Your task to perform on an android device: Go to notification settings Image 0: 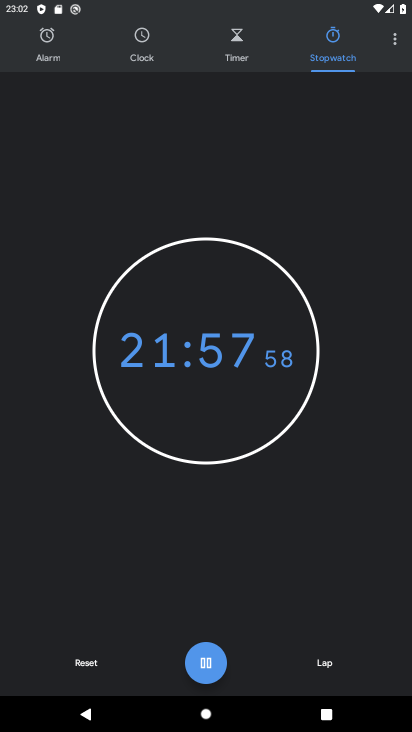
Step 0: press home button
Your task to perform on an android device: Go to notification settings Image 1: 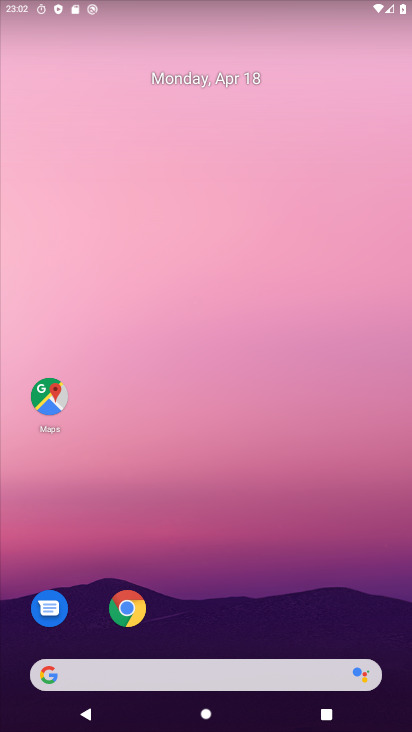
Step 1: drag from (242, 592) to (240, 133)
Your task to perform on an android device: Go to notification settings Image 2: 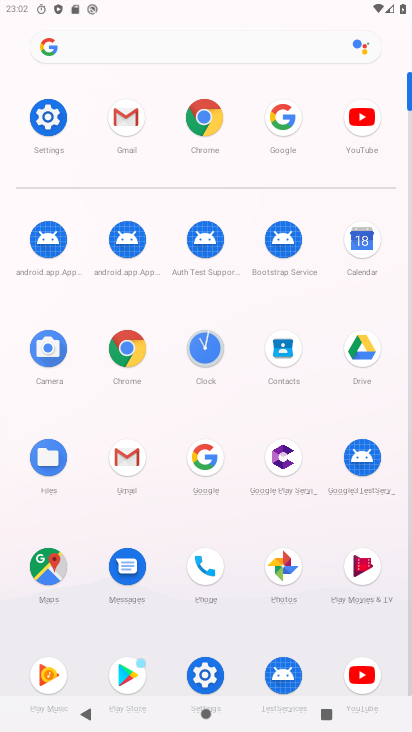
Step 2: click (47, 117)
Your task to perform on an android device: Go to notification settings Image 3: 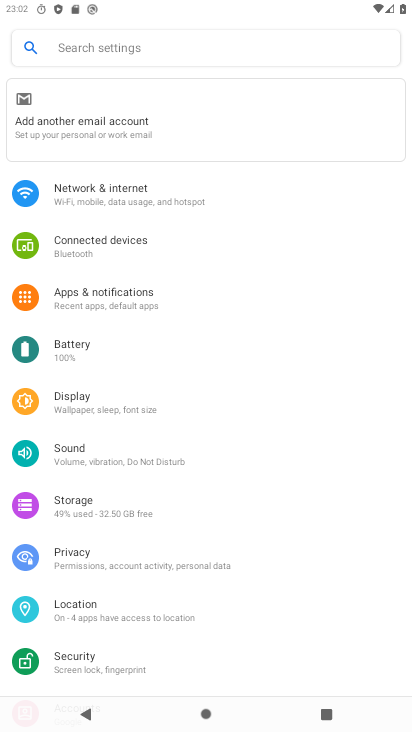
Step 3: click (117, 291)
Your task to perform on an android device: Go to notification settings Image 4: 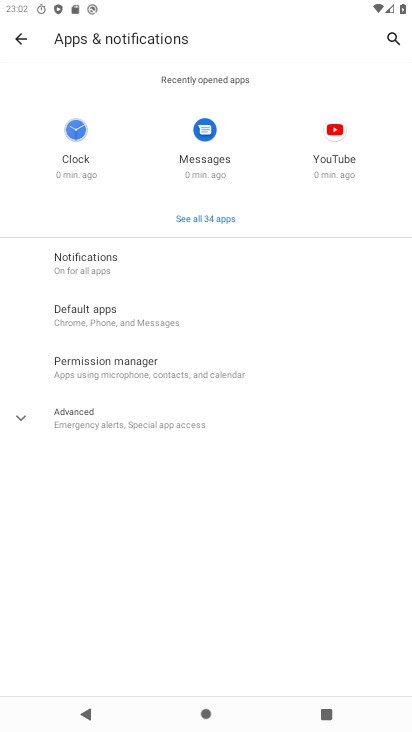
Step 4: click (114, 266)
Your task to perform on an android device: Go to notification settings Image 5: 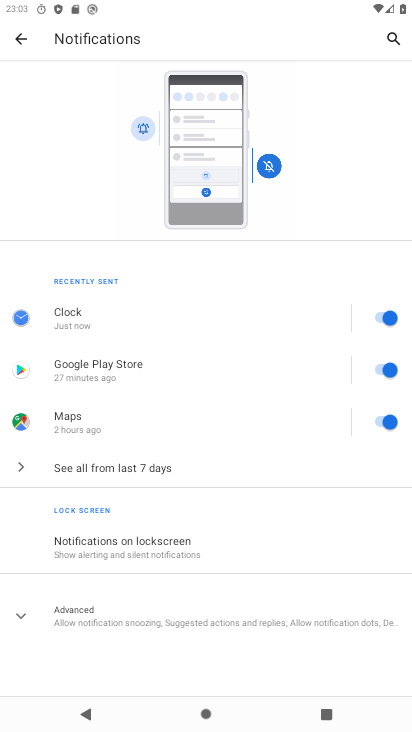
Step 5: task complete